Your task to perform on an android device: What's on my calendar tomorrow? Image 0: 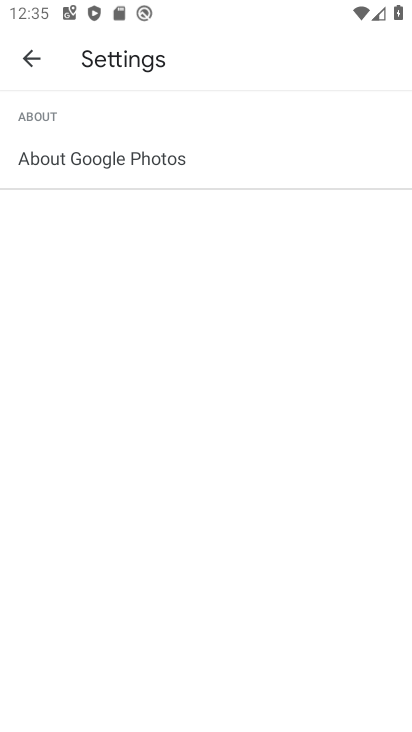
Step 0: press home button
Your task to perform on an android device: What's on my calendar tomorrow? Image 1: 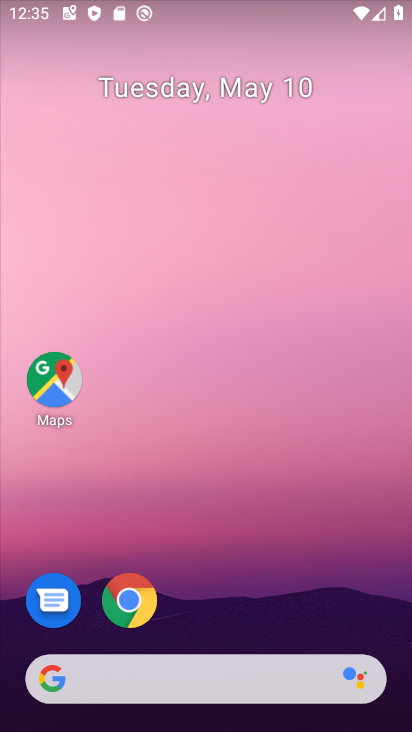
Step 1: drag from (233, 674) to (225, 141)
Your task to perform on an android device: What's on my calendar tomorrow? Image 2: 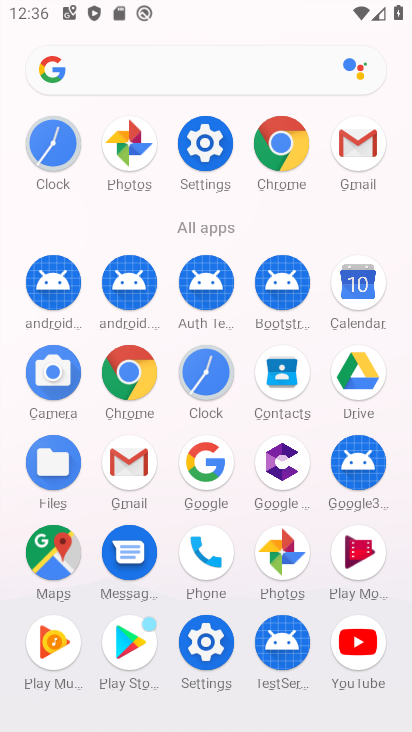
Step 2: click (362, 296)
Your task to perform on an android device: What's on my calendar tomorrow? Image 3: 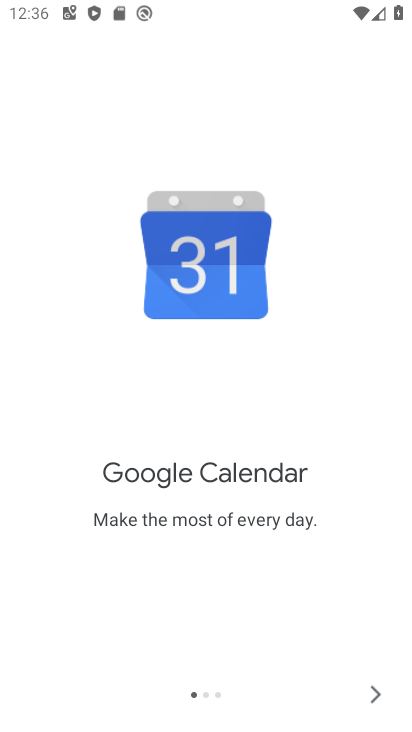
Step 3: click (376, 697)
Your task to perform on an android device: What's on my calendar tomorrow? Image 4: 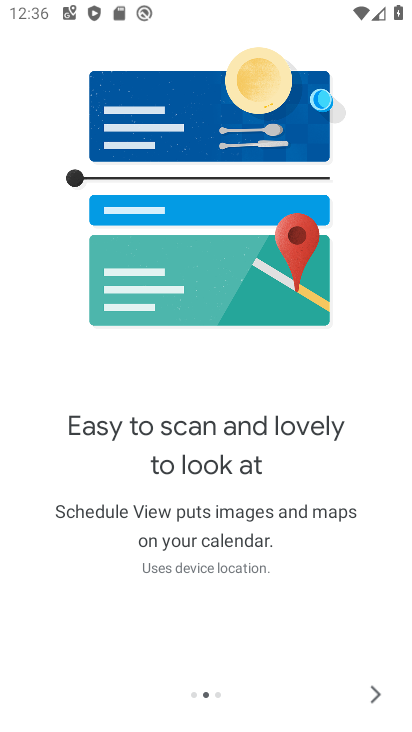
Step 4: click (376, 697)
Your task to perform on an android device: What's on my calendar tomorrow? Image 5: 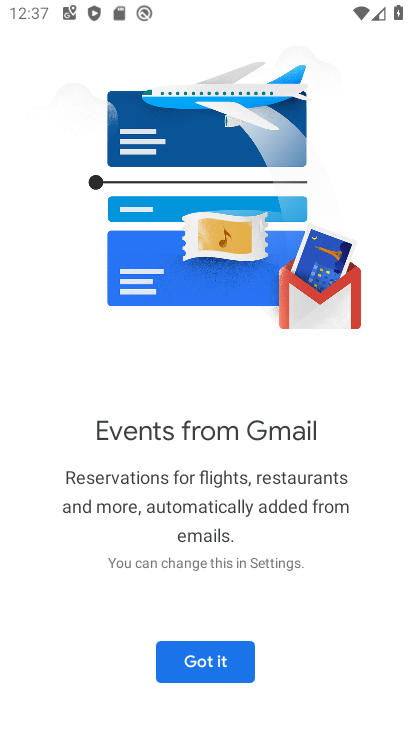
Step 5: click (198, 665)
Your task to perform on an android device: What's on my calendar tomorrow? Image 6: 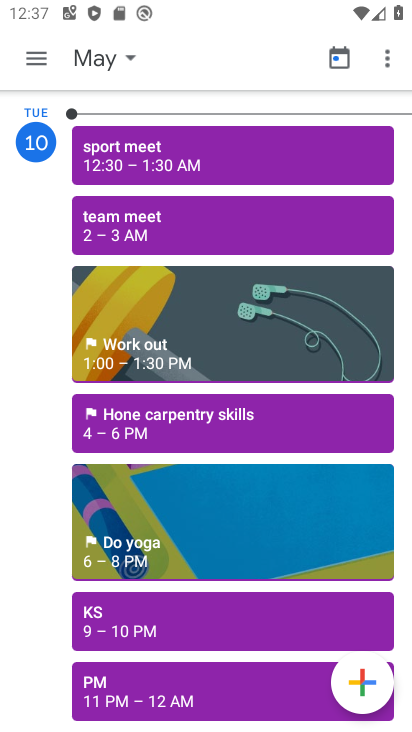
Step 6: task complete